Your task to perform on an android device: Go to network settings Image 0: 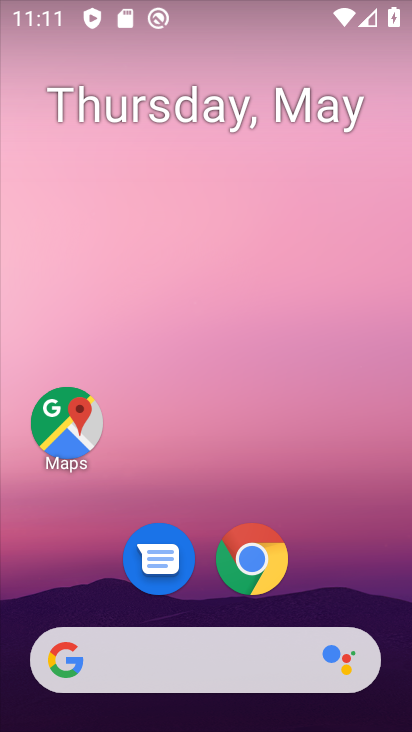
Step 0: drag from (209, 727) to (207, 250)
Your task to perform on an android device: Go to network settings Image 1: 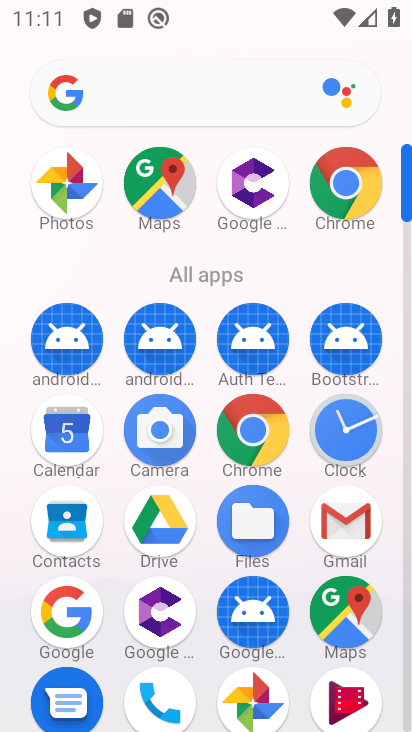
Step 1: drag from (194, 464) to (187, 264)
Your task to perform on an android device: Go to network settings Image 2: 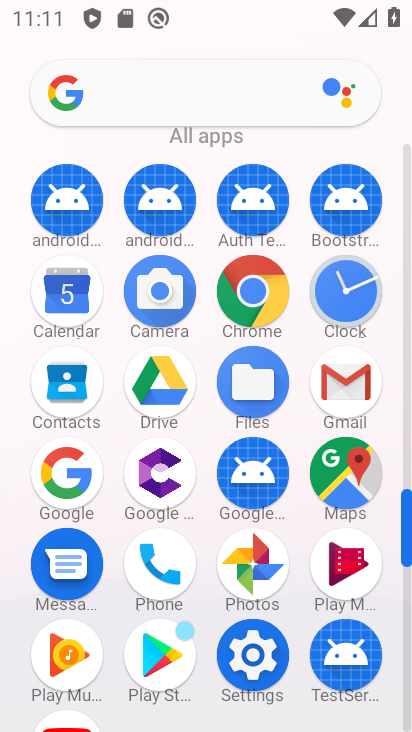
Step 2: click (259, 655)
Your task to perform on an android device: Go to network settings Image 3: 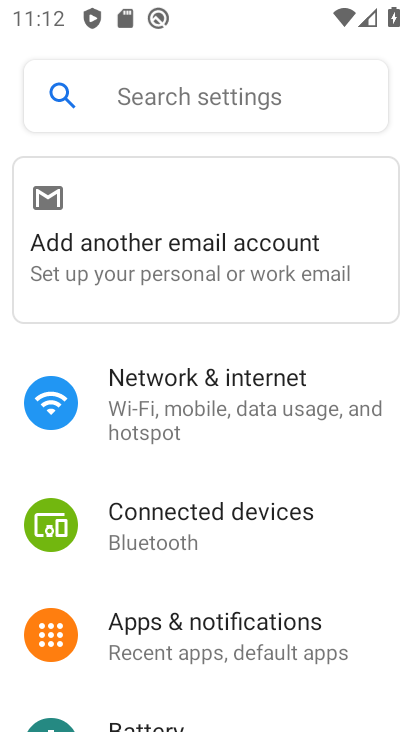
Step 3: click (198, 403)
Your task to perform on an android device: Go to network settings Image 4: 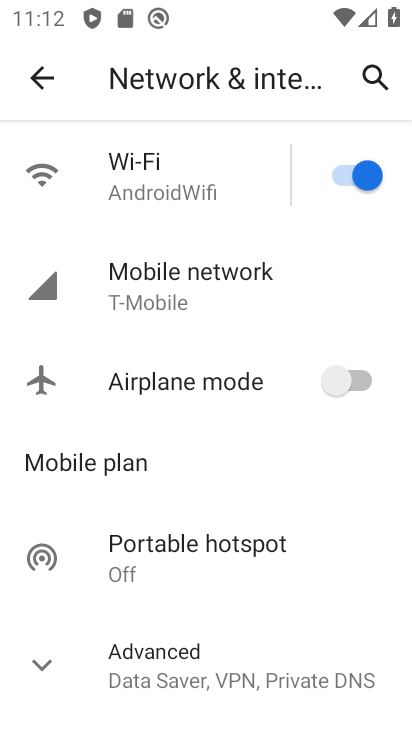
Step 4: click (162, 263)
Your task to perform on an android device: Go to network settings Image 5: 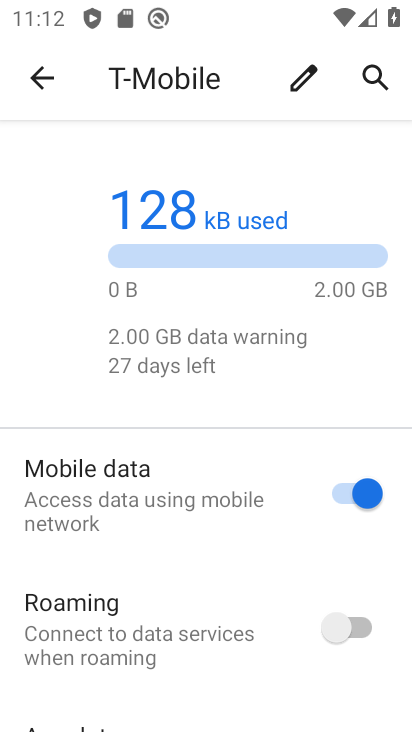
Step 5: task complete